Your task to perform on an android device: allow cookies in the chrome app Image 0: 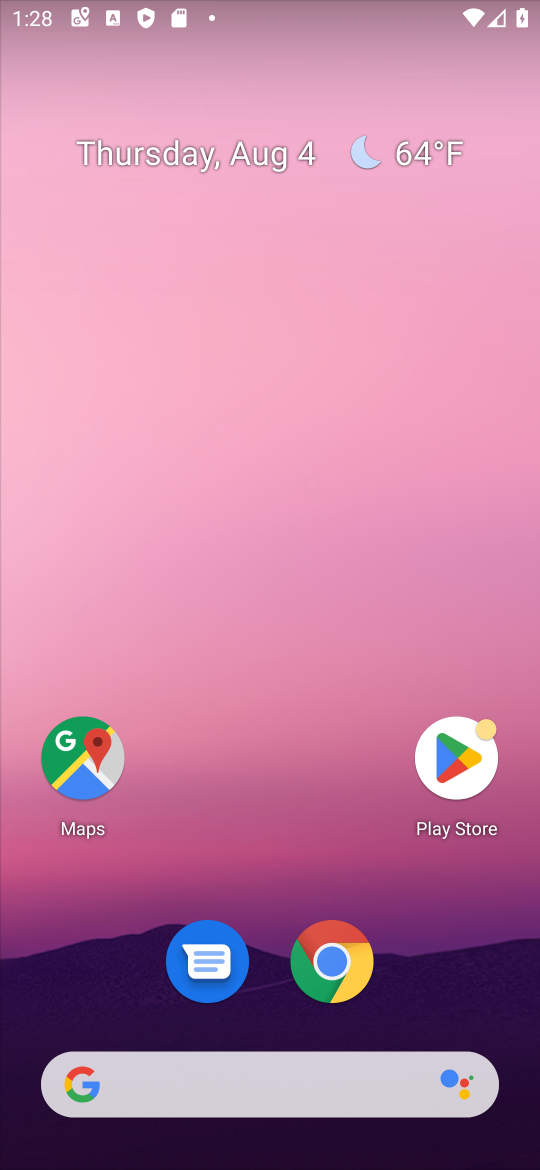
Step 0: click (352, 977)
Your task to perform on an android device: allow cookies in the chrome app Image 1: 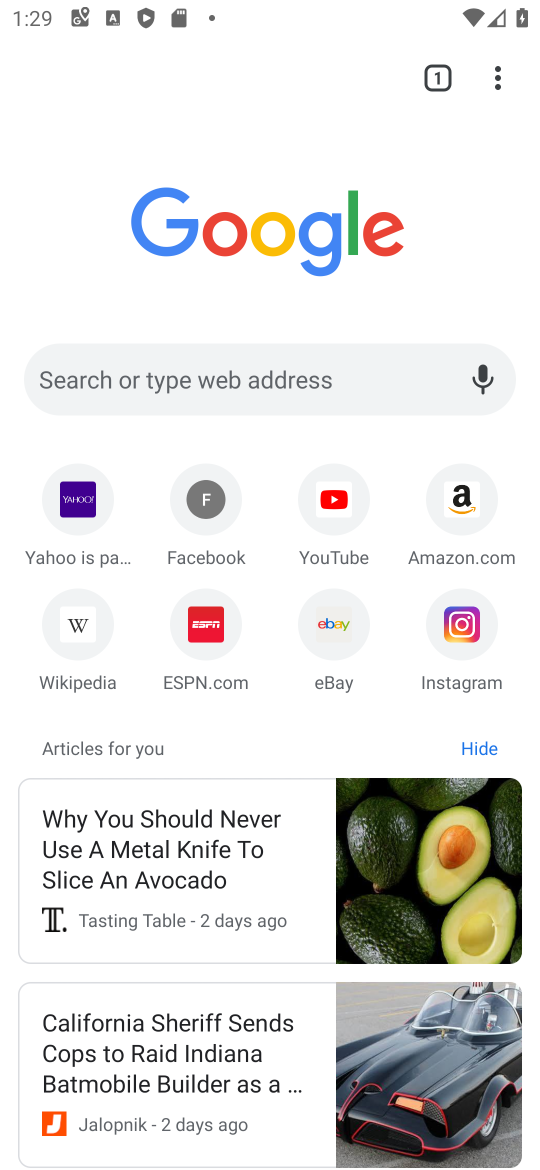
Step 1: click (493, 70)
Your task to perform on an android device: allow cookies in the chrome app Image 2: 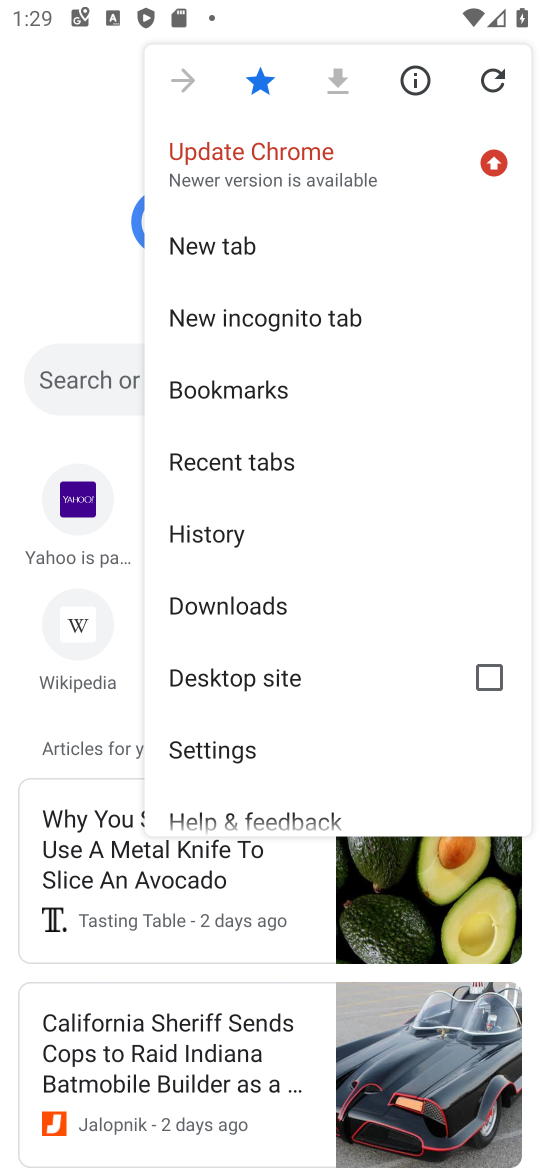
Step 2: click (245, 739)
Your task to perform on an android device: allow cookies in the chrome app Image 3: 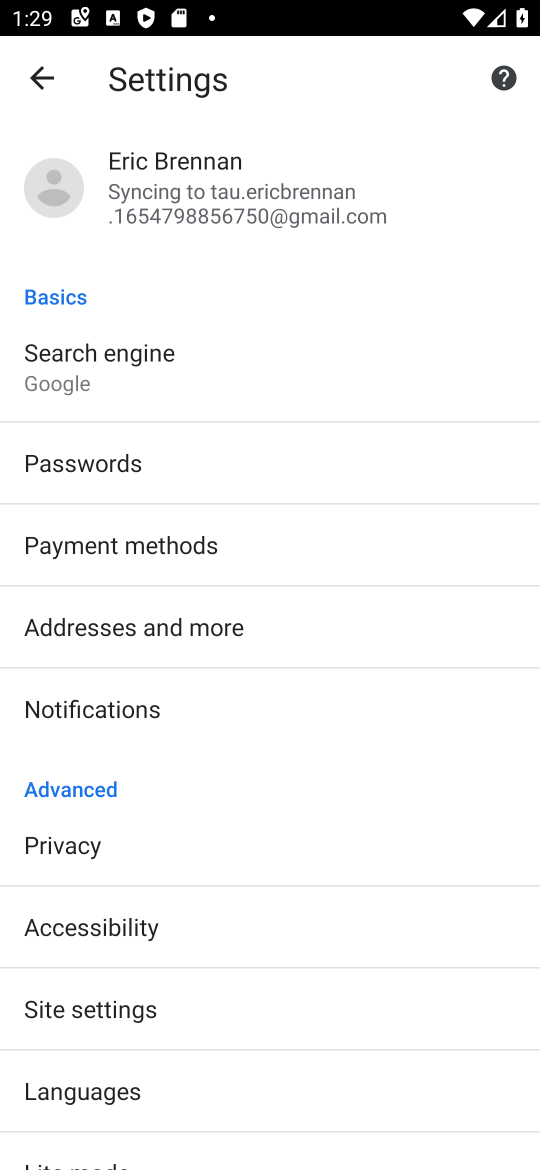
Step 3: click (303, 991)
Your task to perform on an android device: allow cookies in the chrome app Image 4: 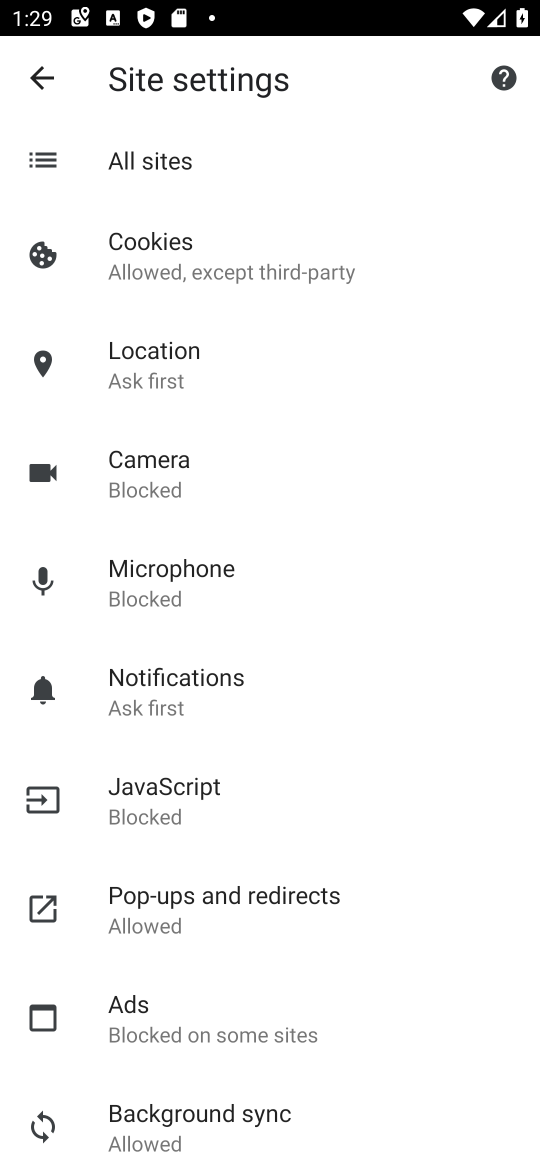
Step 4: click (273, 262)
Your task to perform on an android device: allow cookies in the chrome app Image 5: 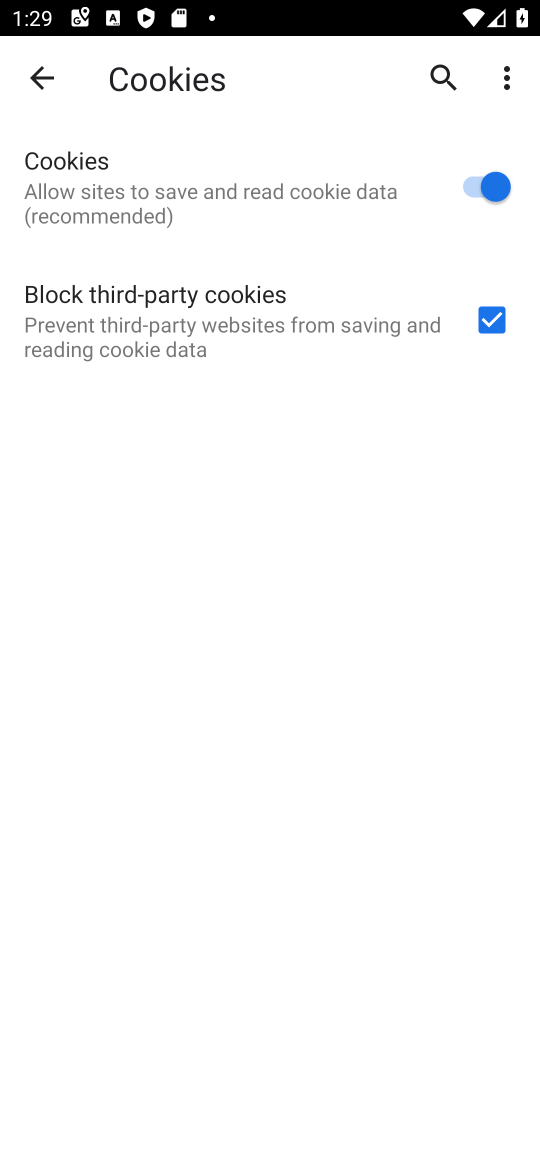
Step 5: task complete